Your task to perform on an android device: Open the web browser Image 0: 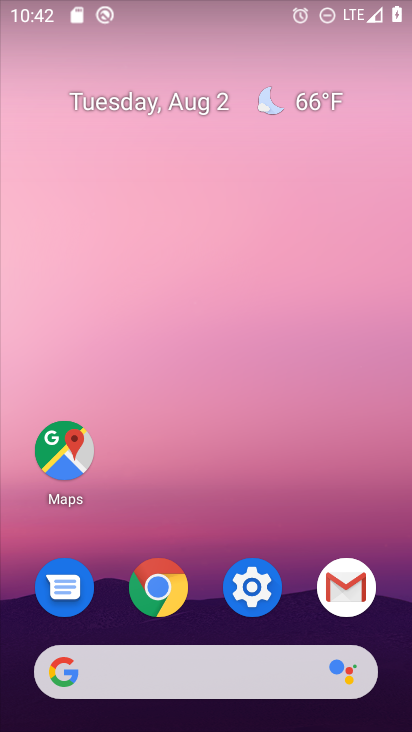
Step 0: press home button
Your task to perform on an android device: Open the web browser Image 1: 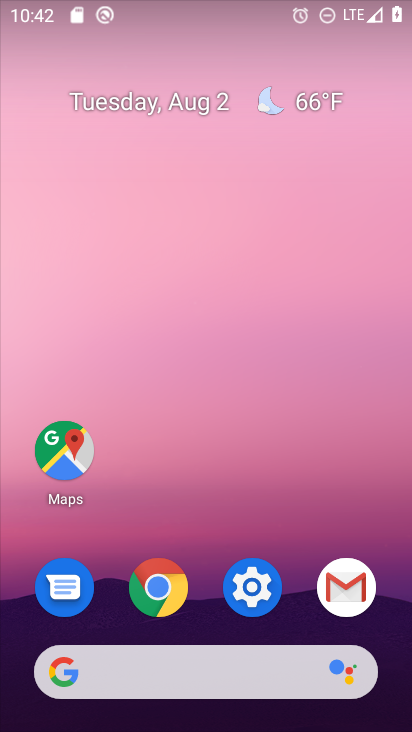
Step 1: click (149, 592)
Your task to perform on an android device: Open the web browser Image 2: 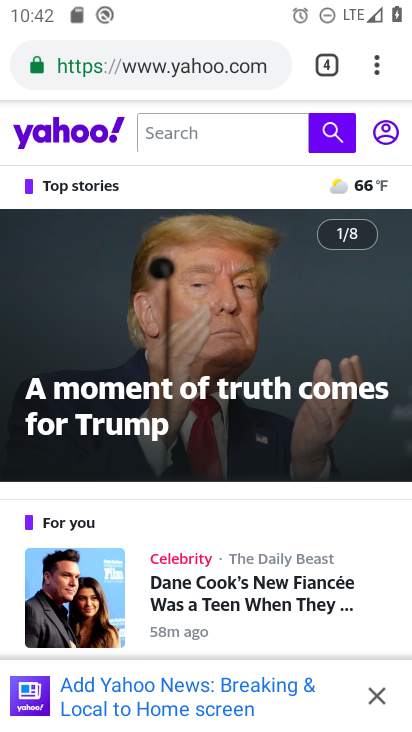
Step 2: click (143, 72)
Your task to perform on an android device: Open the web browser Image 3: 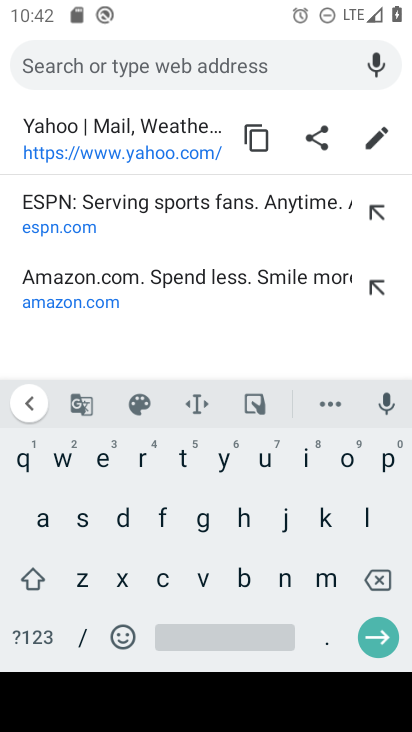
Step 3: task complete